Your task to perform on an android device: check storage Image 0: 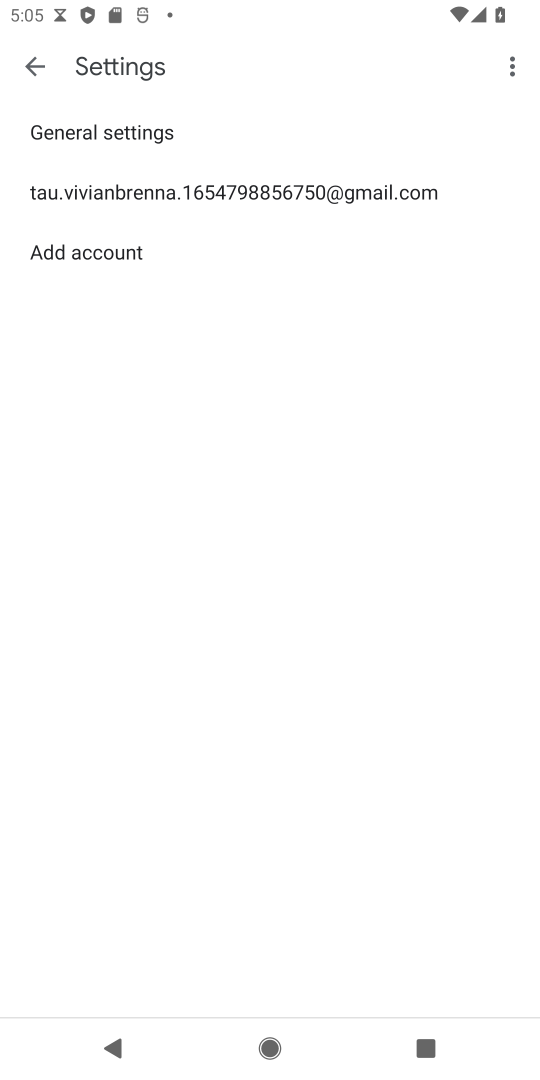
Step 0: press home button
Your task to perform on an android device: check storage Image 1: 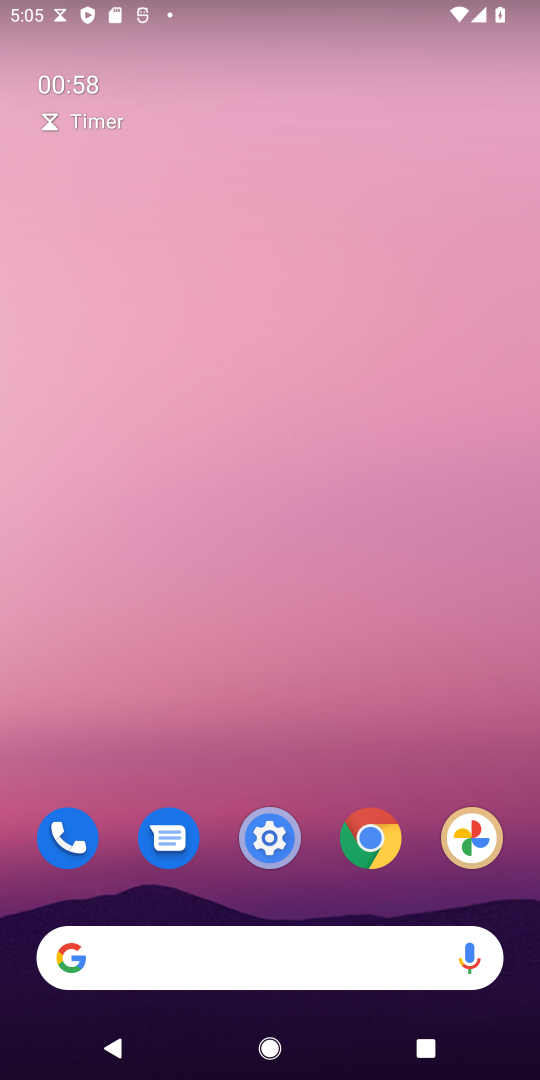
Step 1: click (270, 843)
Your task to perform on an android device: check storage Image 2: 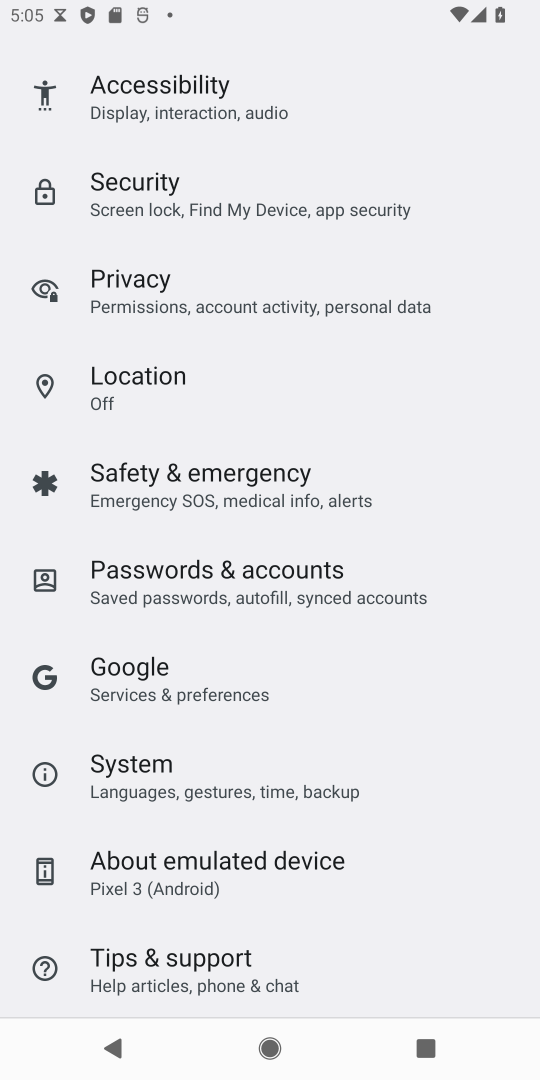
Step 2: drag from (186, 153) to (275, 798)
Your task to perform on an android device: check storage Image 3: 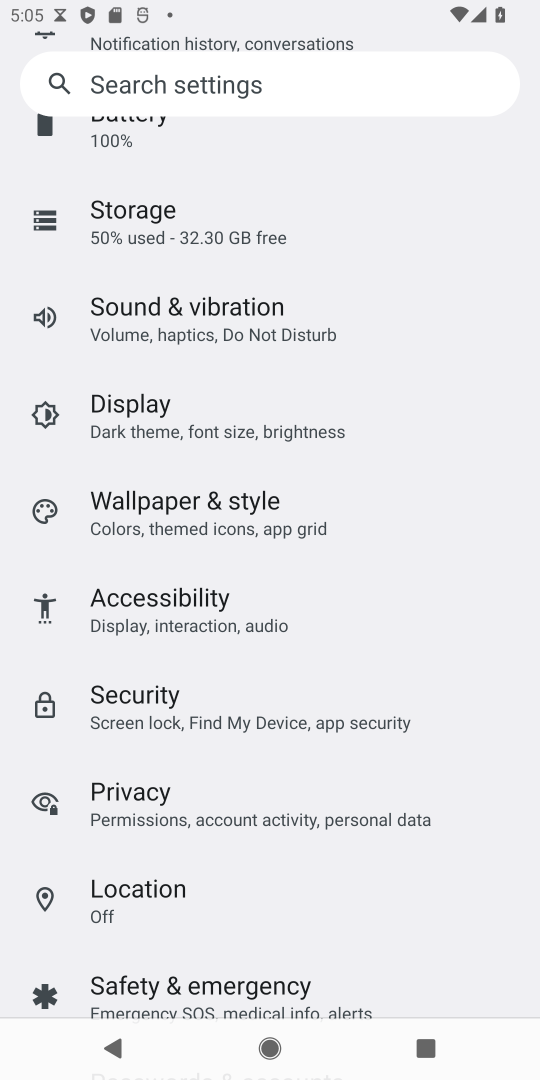
Step 3: click (159, 233)
Your task to perform on an android device: check storage Image 4: 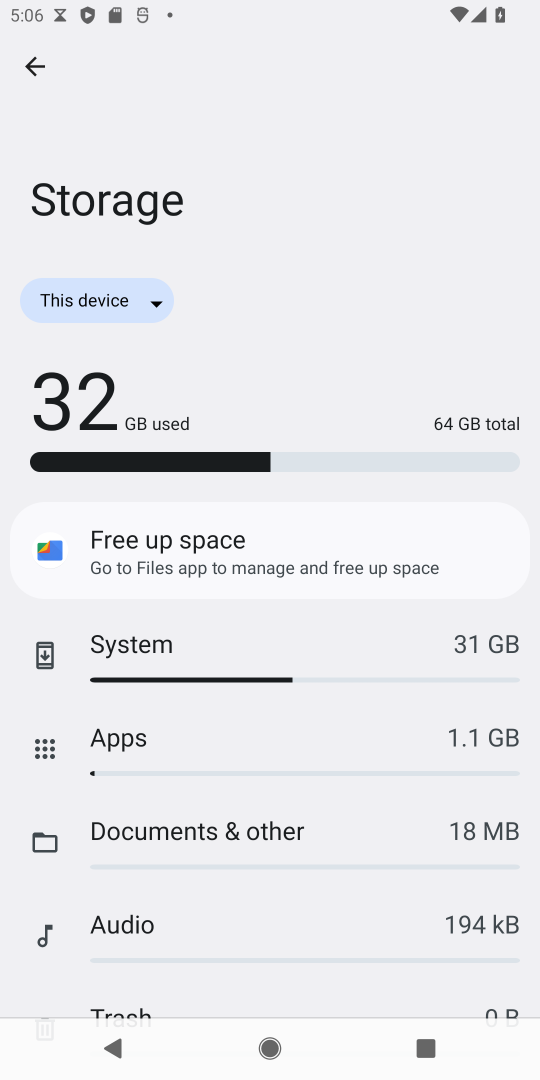
Step 4: task complete